Your task to perform on an android device: delete a single message in the gmail app Image 0: 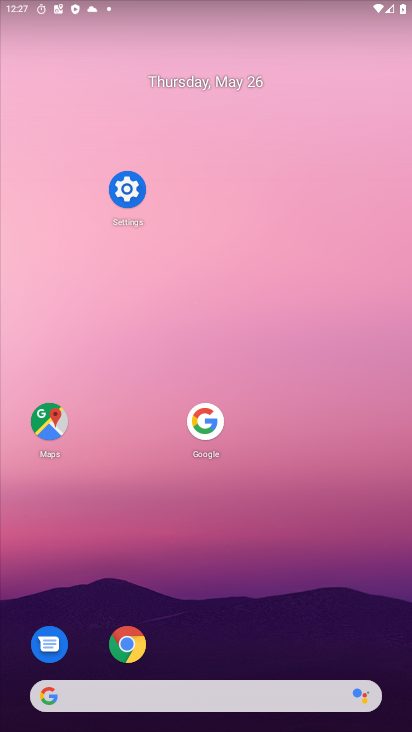
Step 0: drag from (275, 565) to (328, 71)
Your task to perform on an android device: delete a single message in the gmail app Image 1: 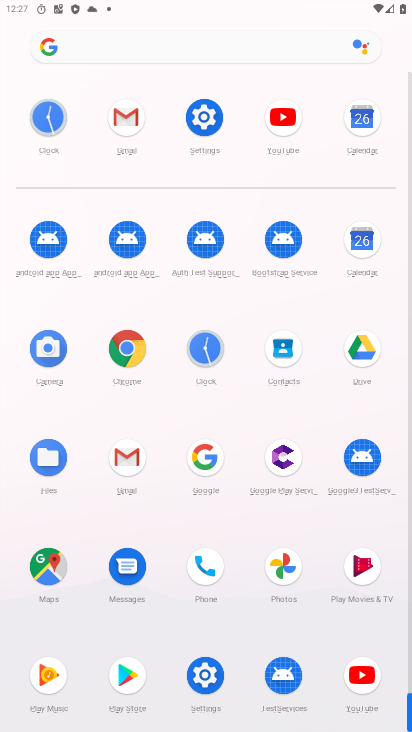
Step 1: drag from (169, 626) to (160, 408)
Your task to perform on an android device: delete a single message in the gmail app Image 2: 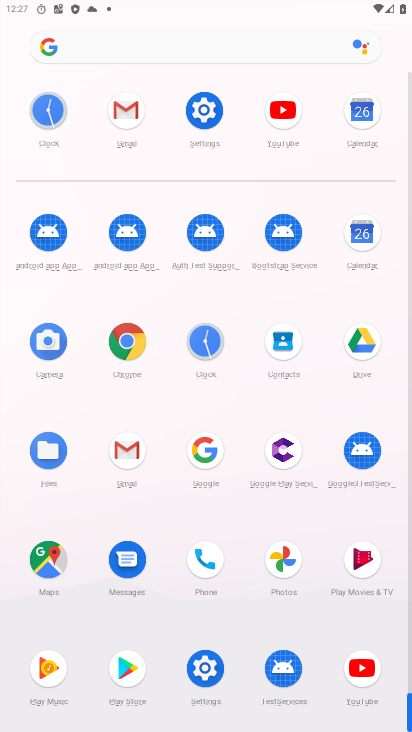
Step 2: click (136, 442)
Your task to perform on an android device: delete a single message in the gmail app Image 3: 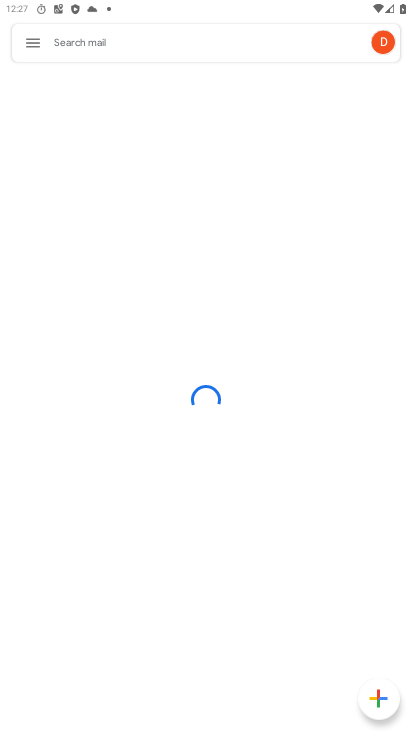
Step 3: click (37, 41)
Your task to perform on an android device: delete a single message in the gmail app Image 4: 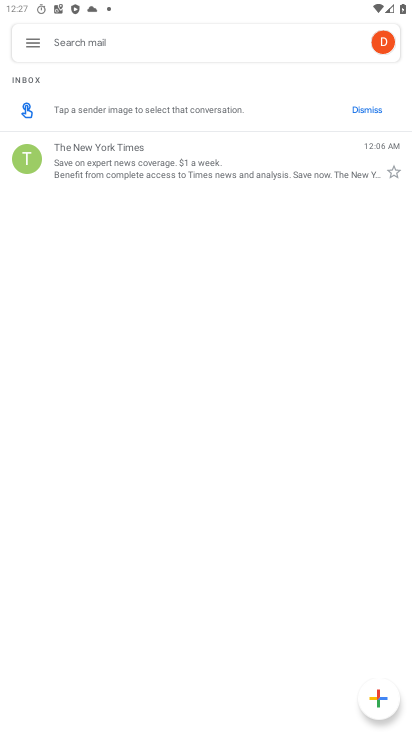
Step 4: click (148, 164)
Your task to perform on an android device: delete a single message in the gmail app Image 5: 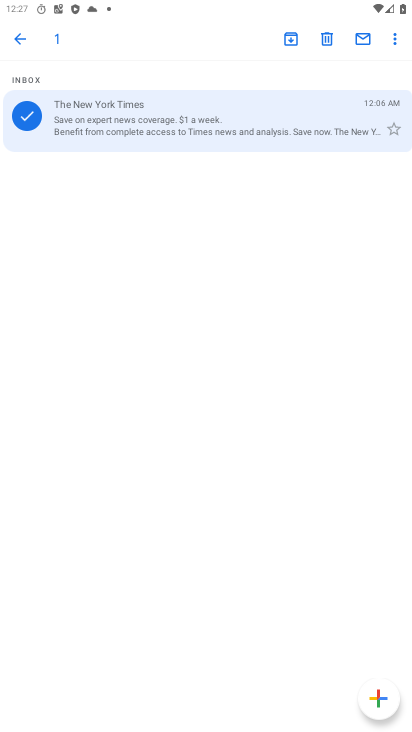
Step 5: click (319, 37)
Your task to perform on an android device: delete a single message in the gmail app Image 6: 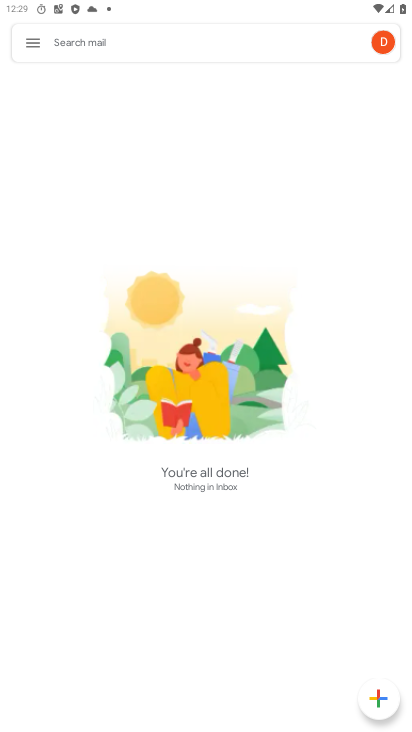
Step 6: task complete